Your task to perform on an android device: Go to settings Image 0: 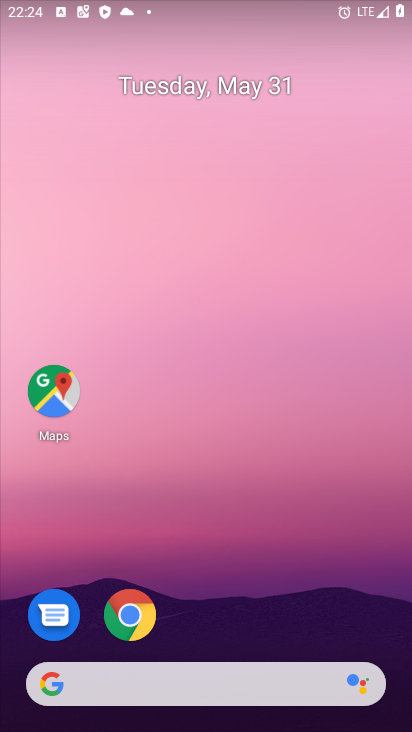
Step 0: drag from (343, 633) to (303, 25)
Your task to perform on an android device: Go to settings Image 1: 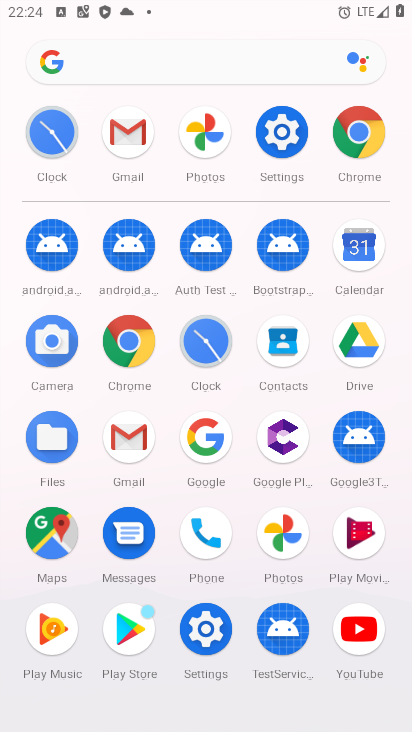
Step 1: click (205, 632)
Your task to perform on an android device: Go to settings Image 2: 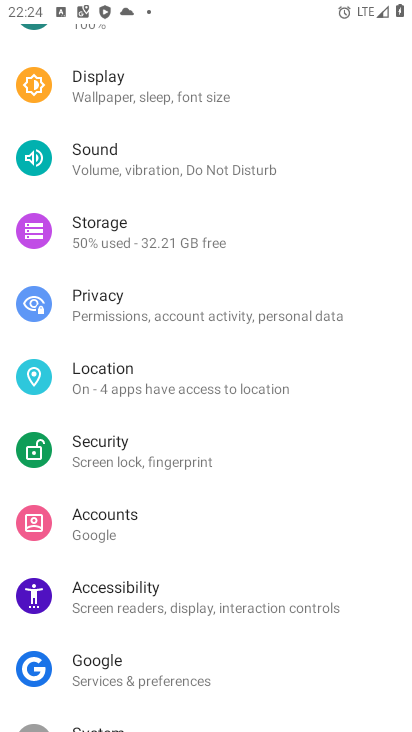
Step 2: task complete